Your task to perform on an android device: Go to network settings Image 0: 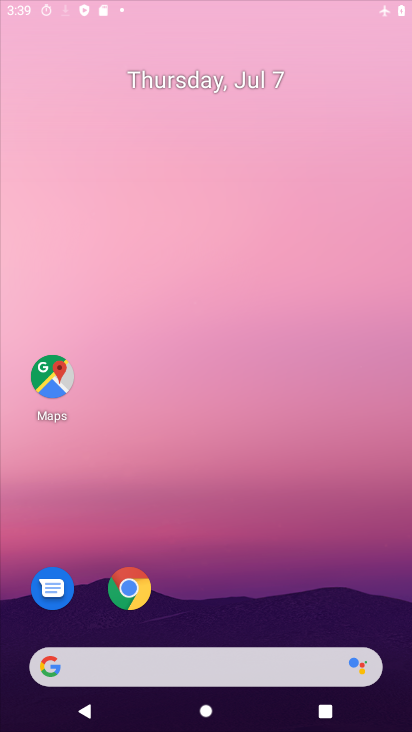
Step 0: drag from (272, 641) to (184, 200)
Your task to perform on an android device: Go to network settings Image 1: 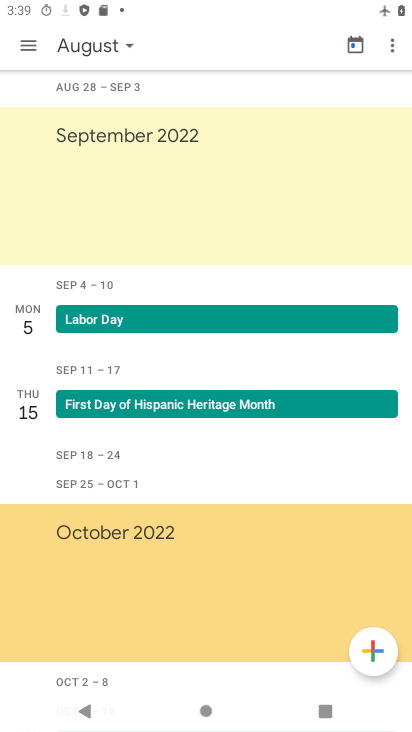
Step 1: press back button
Your task to perform on an android device: Go to network settings Image 2: 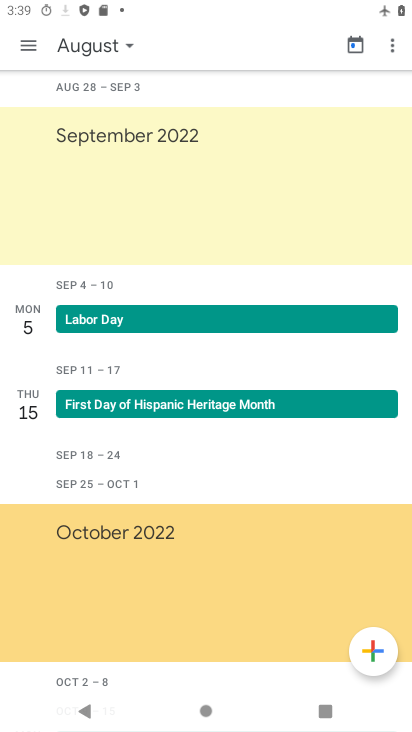
Step 2: press back button
Your task to perform on an android device: Go to network settings Image 3: 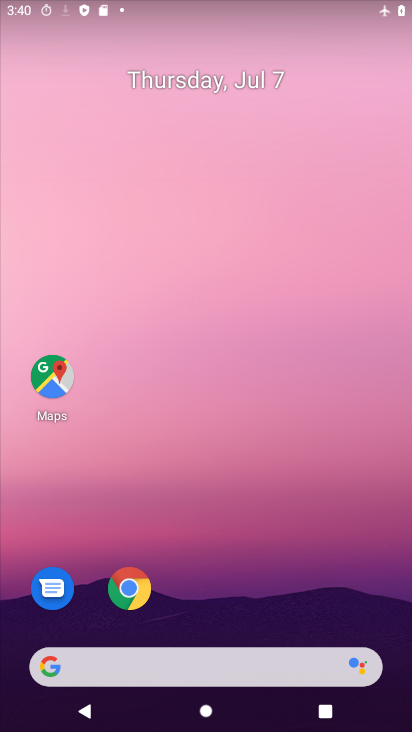
Step 3: drag from (271, 653) to (210, 135)
Your task to perform on an android device: Go to network settings Image 4: 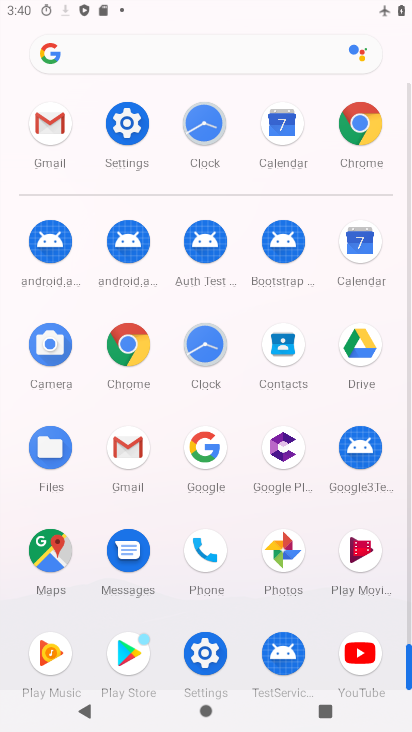
Step 4: click (126, 121)
Your task to perform on an android device: Go to network settings Image 5: 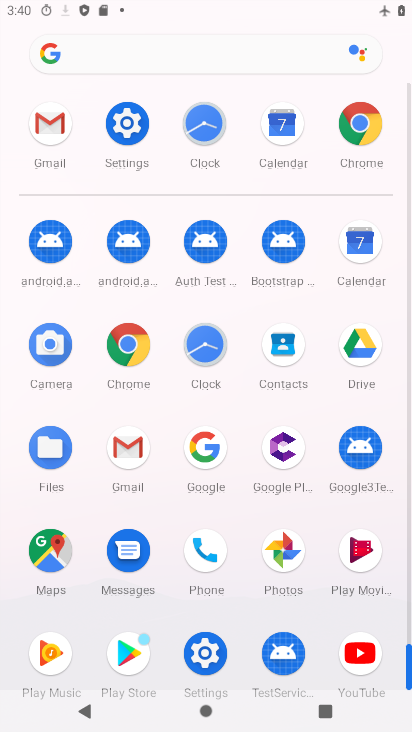
Step 5: click (128, 121)
Your task to perform on an android device: Go to network settings Image 6: 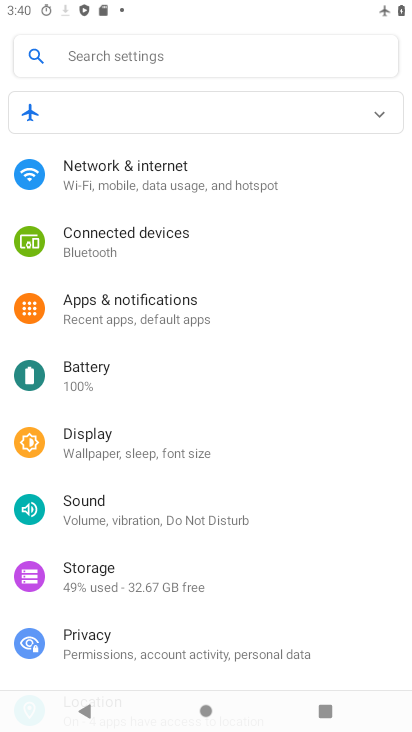
Step 6: click (136, 184)
Your task to perform on an android device: Go to network settings Image 7: 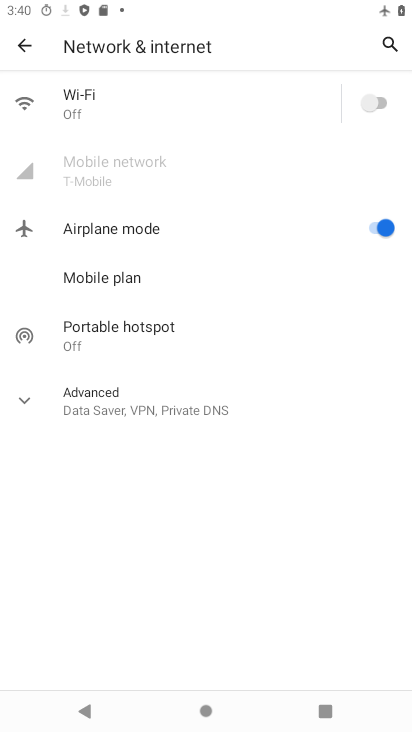
Step 7: click (365, 100)
Your task to perform on an android device: Go to network settings Image 8: 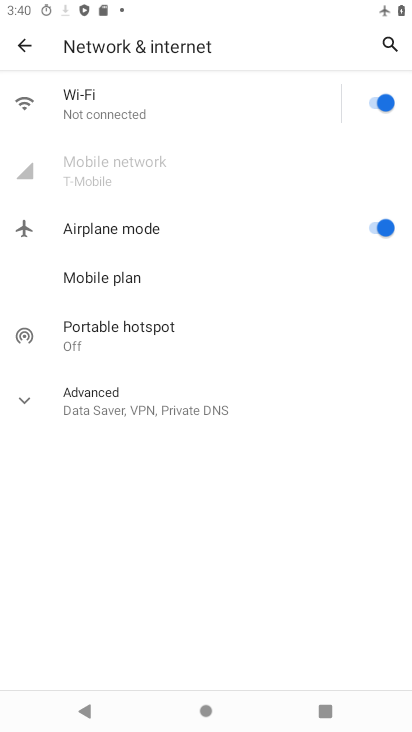
Step 8: click (380, 106)
Your task to perform on an android device: Go to network settings Image 9: 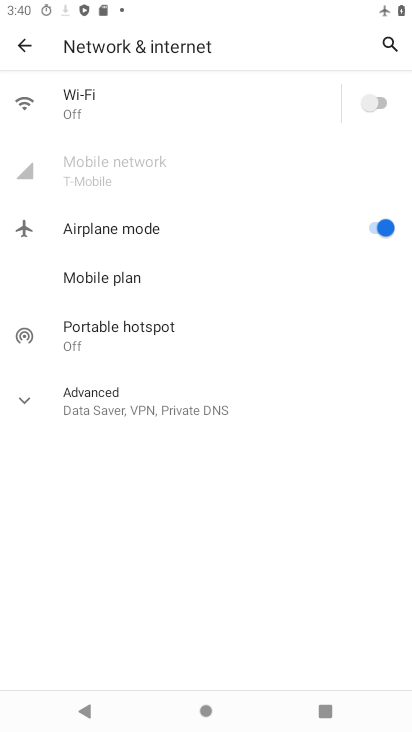
Step 9: click (135, 226)
Your task to perform on an android device: Go to network settings Image 10: 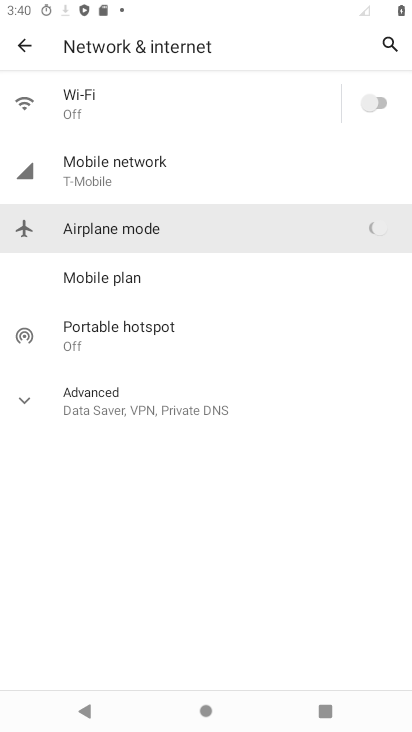
Step 10: click (391, 226)
Your task to perform on an android device: Go to network settings Image 11: 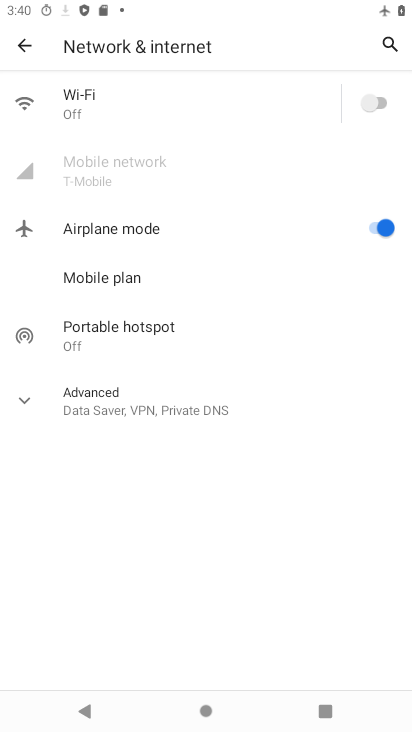
Step 11: click (376, 94)
Your task to perform on an android device: Go to network settings Image 12: 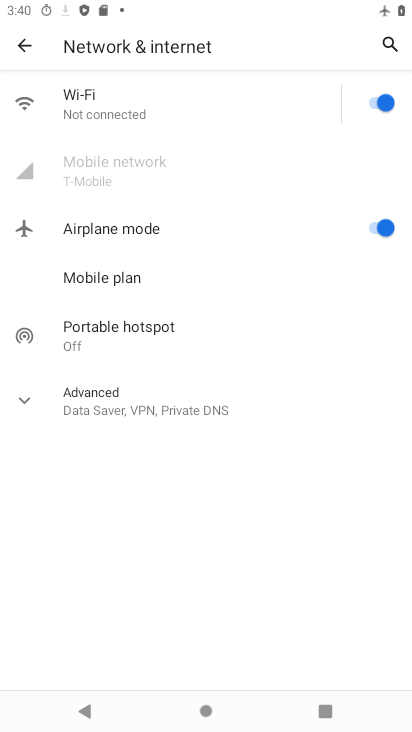
Step 12: click (380, 229)
Your task to perform on an android device: Go to network settings Image 13: 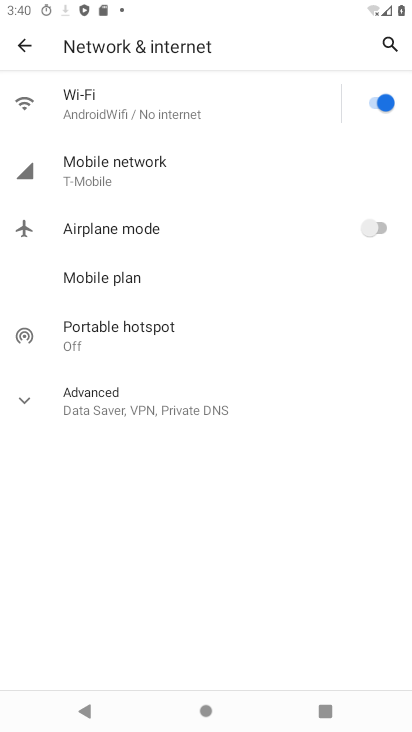
Step 13: click (109, 153)
Your task to perform on an android device: Go to network settings Image 14: 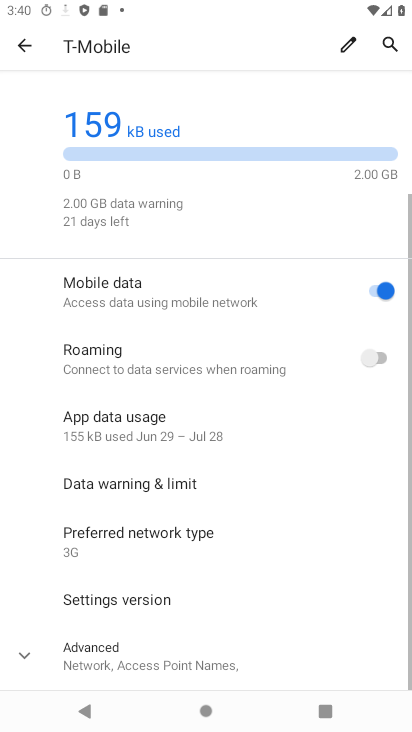
Step 14: click (90, 164)
Your task to perform on an android device: Go to network settings Image 15: 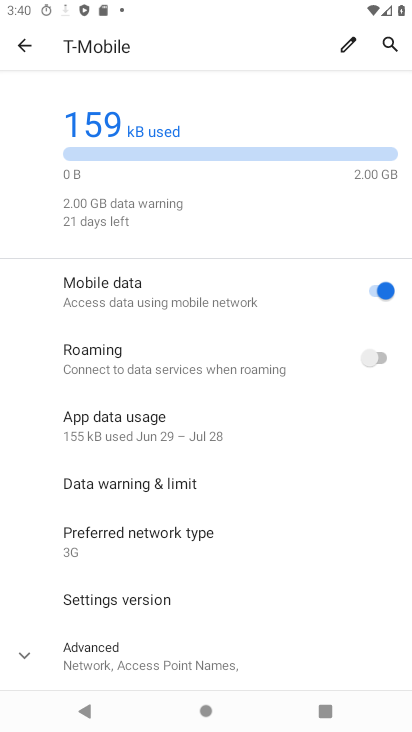
Step 15: drag from (171, 538) to (135, 195)
Your task to perform on an android device: Go to network settings Image 16: 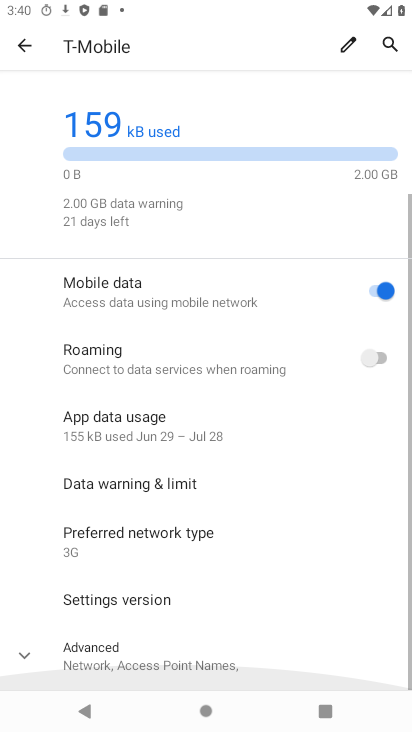
Step 16: drag from (175, 503) to (139, 175)
Your task to perform on an android device: Go to network settings Image 17: 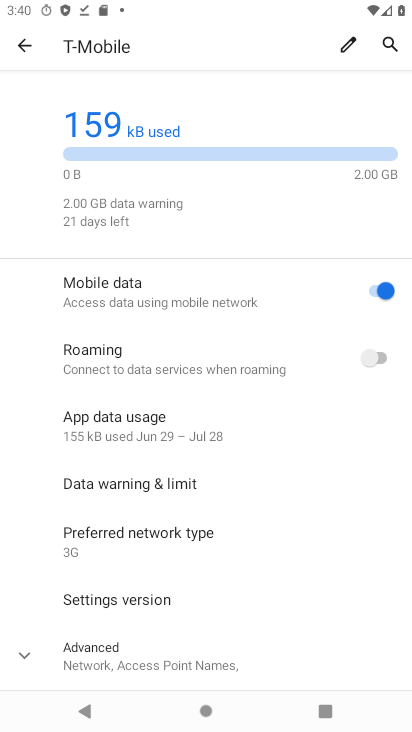
Step 17: drag from (196, 450) to (218, 238)
Your task to perform on an android device: Go to network settings Image 18: 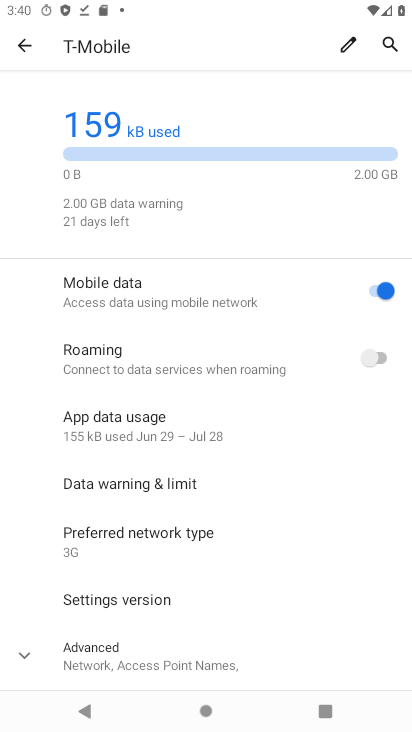
Step 18: click (28, 47)
Your task to perform on an android device: Go to network settings Image 19: 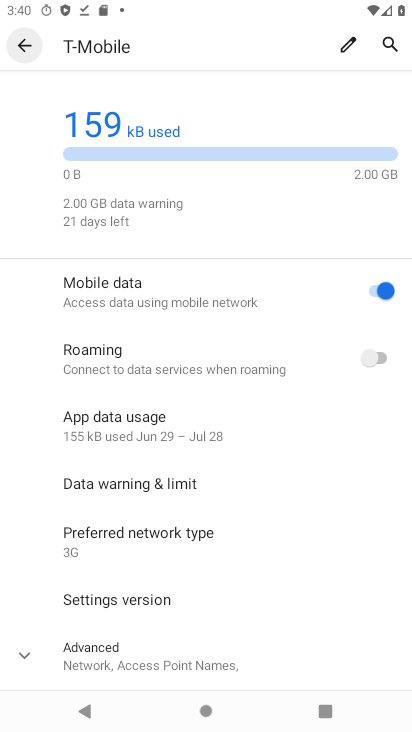
Step 19: click (29, 47)
Your task to perform on an android device: Go to network settings Image 20: 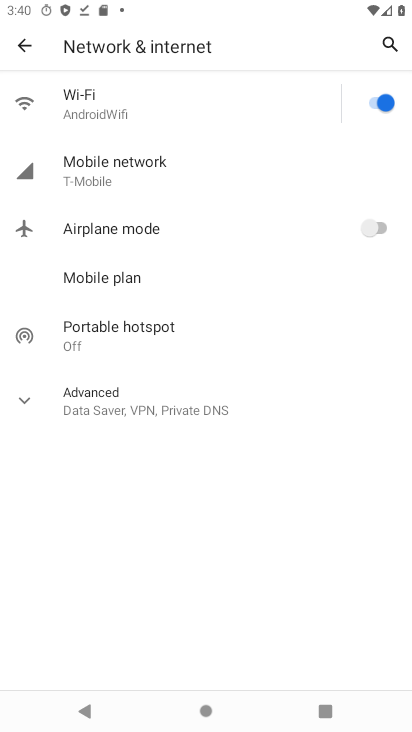
Step 20: click (103, 156)
Your task to perform on an android device: Go to network settings Image 21: 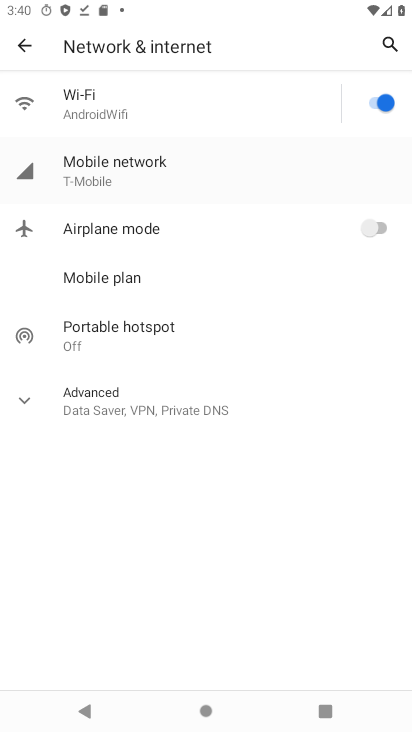
Step 21: click (110, 160)
Your task to perform on an android device: Go to network settings Image 22: 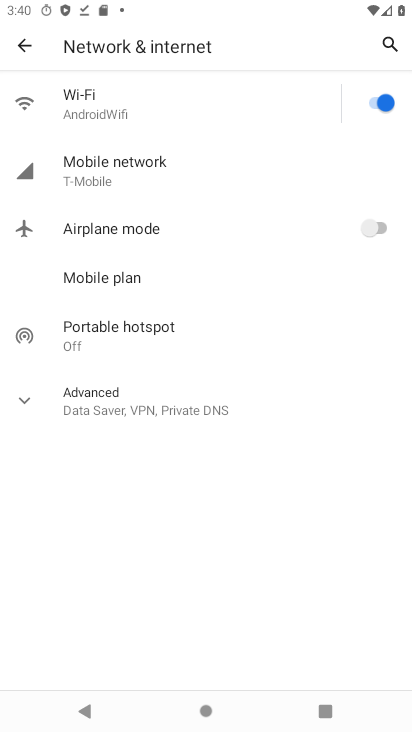
Step 22: click (113, 161)
Your task to perform on an android device: Go to network settings Image 23: 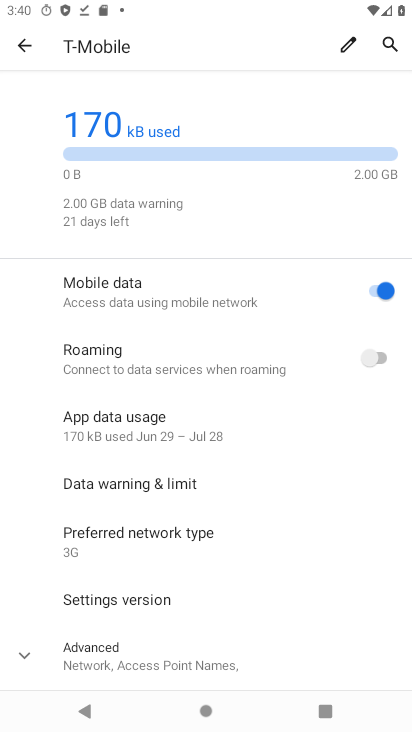
Step 23: task complete